Your task to perform on an android device: turn off location Image 0: 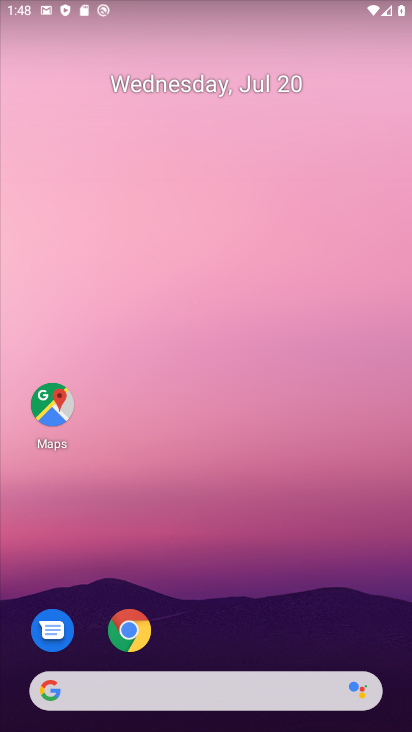
Step 0: drag from (225, 662) to (221, 238)
Your task to perform on an android device: turn off location Image 1: 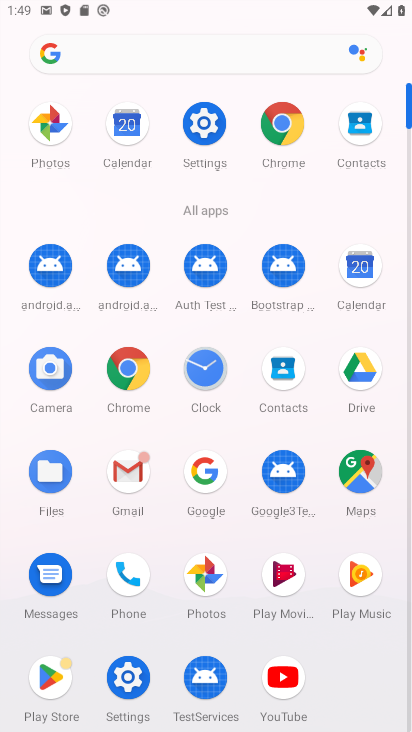
Step 1: click (127, 672)
Your task to perform on an android device: turn off location Image 2: 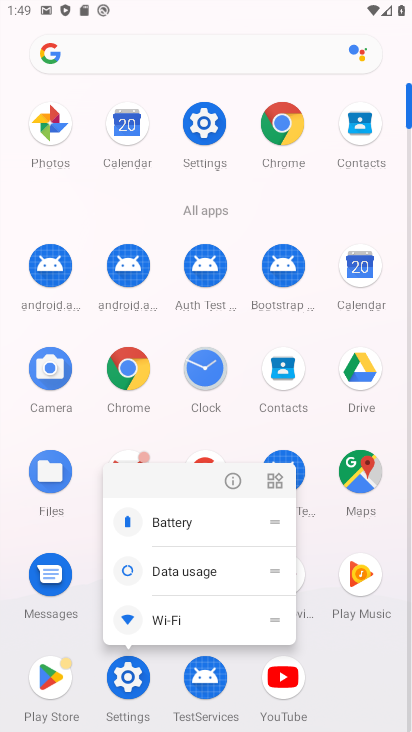
Step 2: click (126, 677)
Your task to perform on an android device: turn off location Image 3: 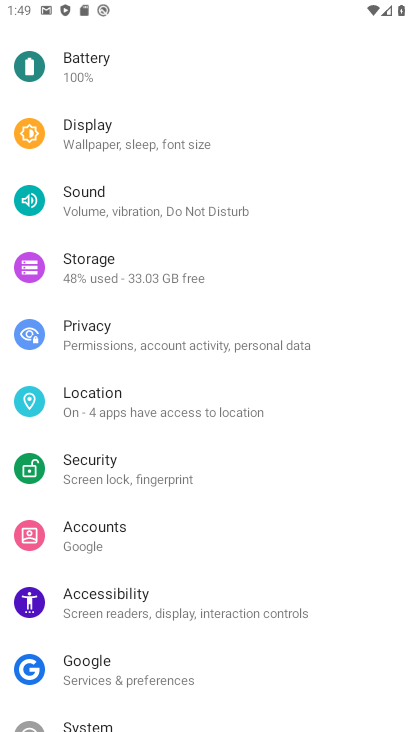
Step 3: click (187, 402)
Your task to perform on an android device: turn off location Image 4: 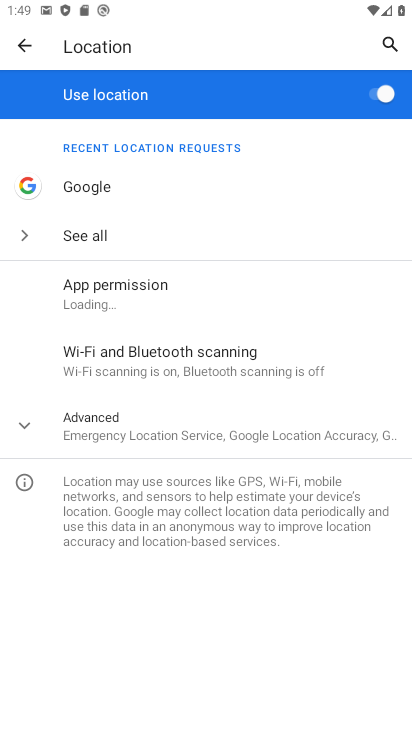
Step 4: click (376, 91)
Your task to perform on an android device: turn off location Image 5: 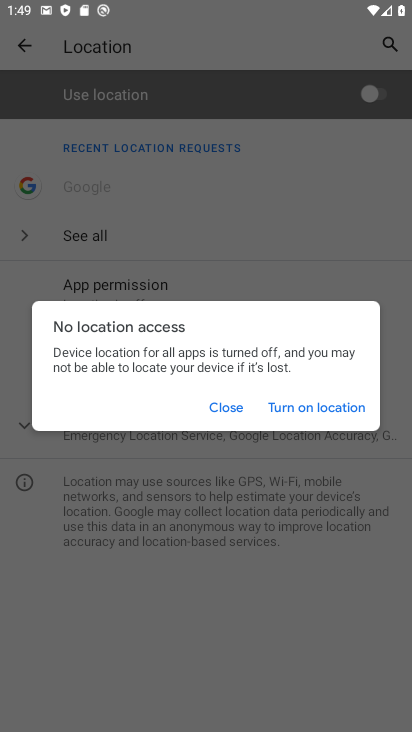
Step 5: task complete